Your task to perform on an android device: delete location history Image 0: 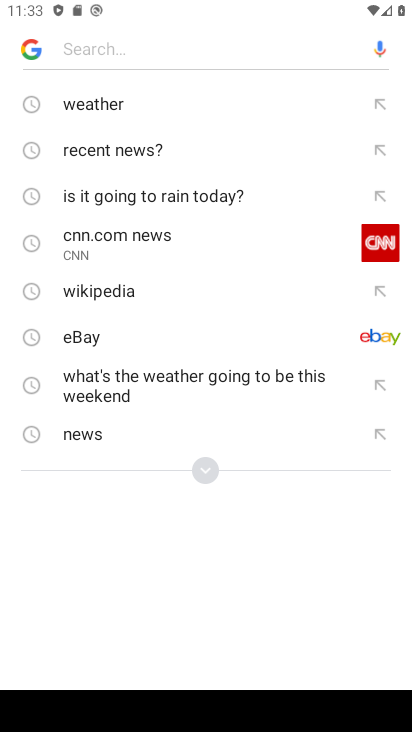
Step 0: press home button
Your task to perform on an android device: delete location history Image 1: 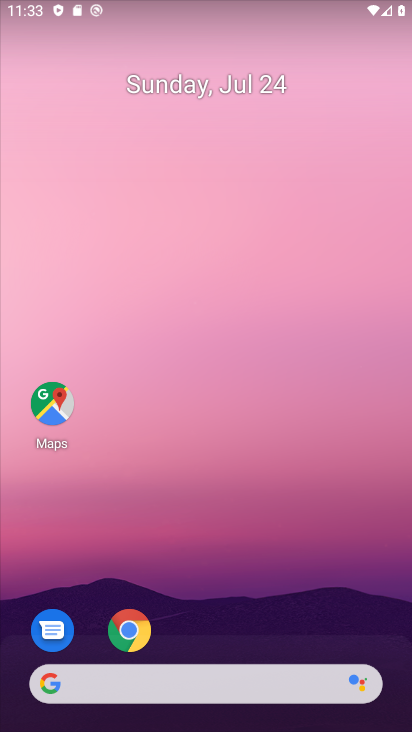
Step 1: drag from (253, 544) to (239, 122)
Your task to perform on an android device: delete location history Image 2: 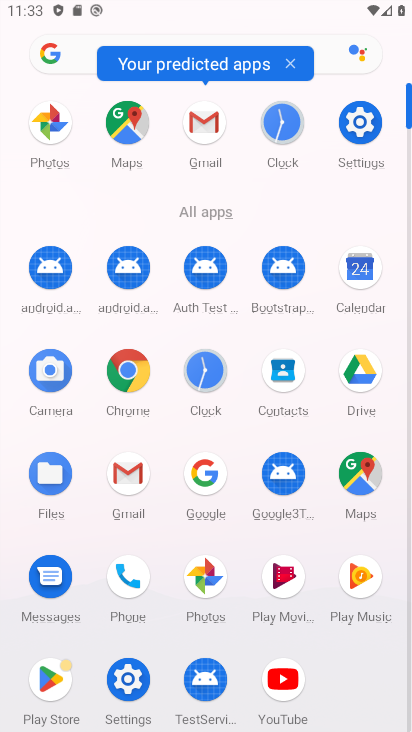
Step 2: click (124, 132)
Your task to perform on an android device: delete location history Image 3: 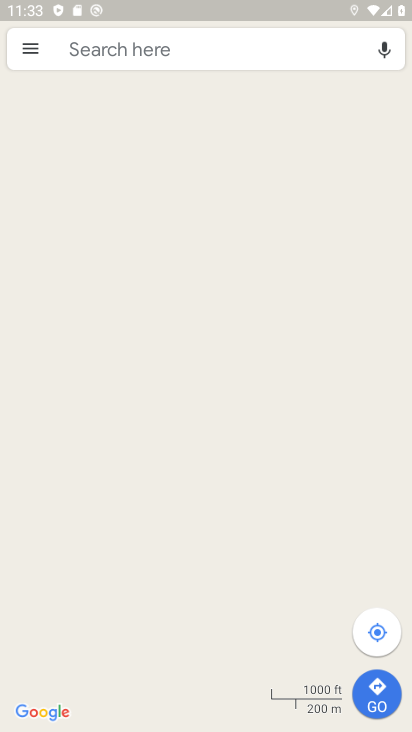
Step 3: click (23, 51)
Your task to perform on an android device: delete location history Image 4: 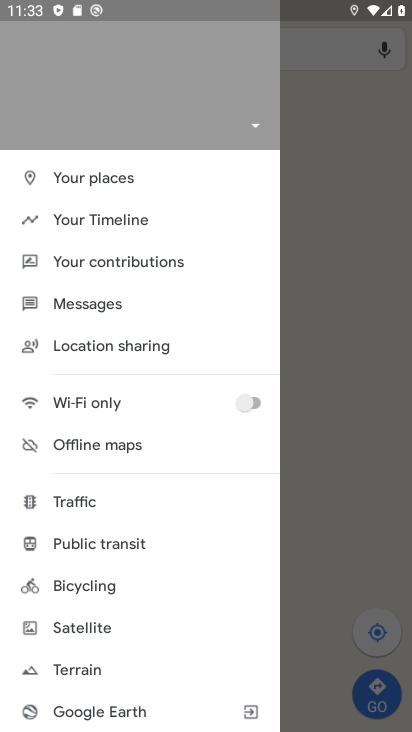
Step 4: click (120, 220)
Your task to perform on an android device: delete location history Image 5: 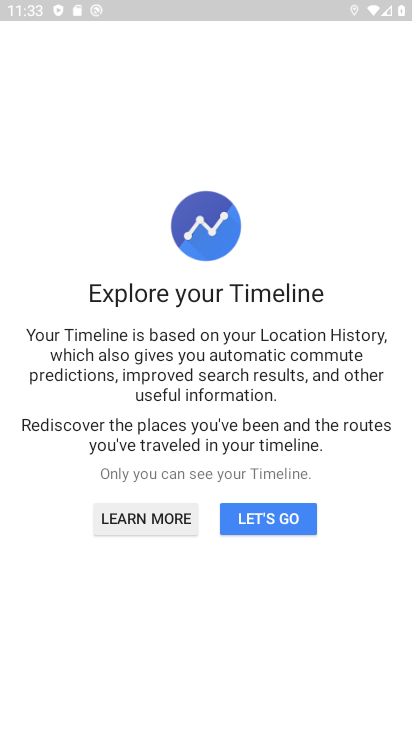
Step 5: click (258, 514)
Your task to perform on an android device: delete location history Image 6: 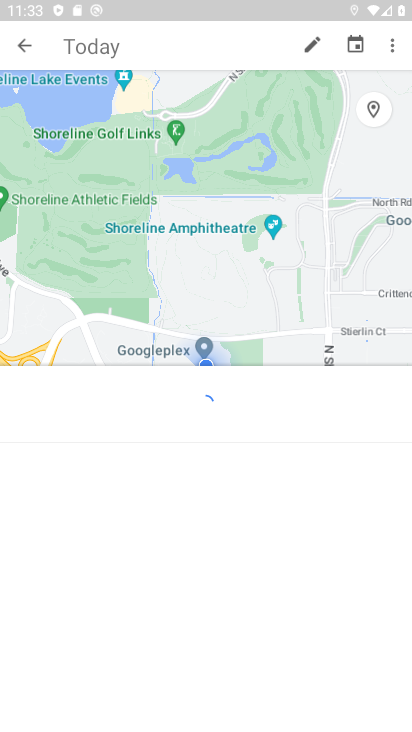
Step 6: click (391, 44)
Your task to perform on an android device: delete location history Image 7: 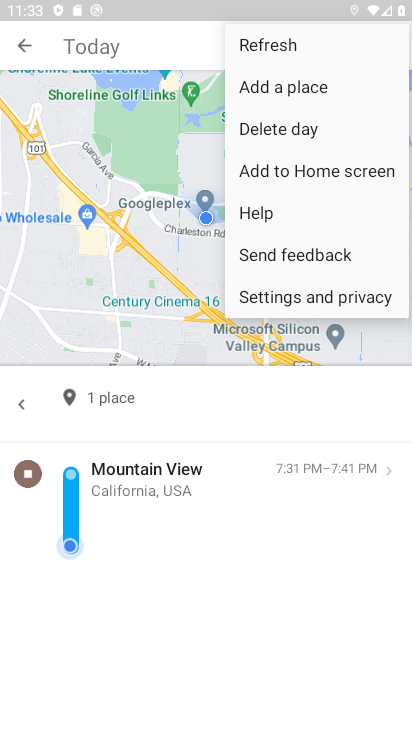
Step 7: click (358, 302)
Your task to perform on an android device: delete location history Image 8: 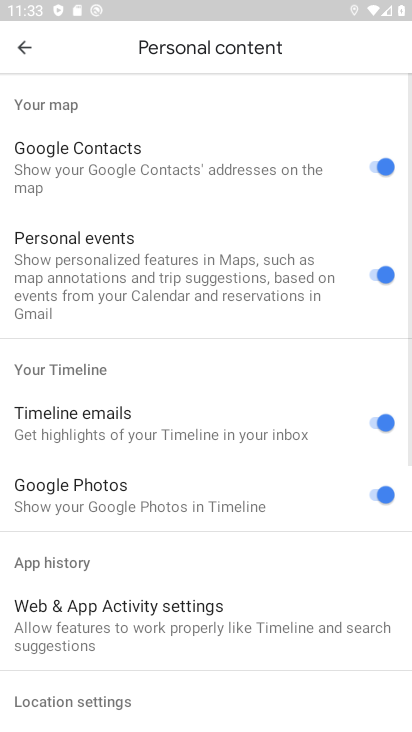
Step 8: drag from (225, 695) to (210, 353)
Your task to perform on an android device: delete location history Image 9: 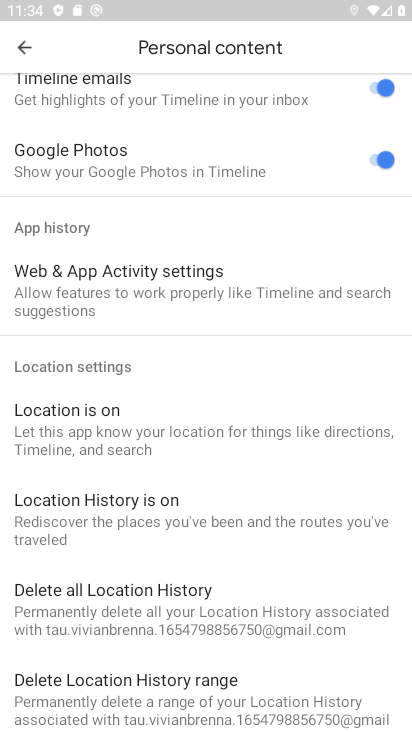
Step 9: click (222, 598)
Your task to perform on an android device: delete location history Image 10: 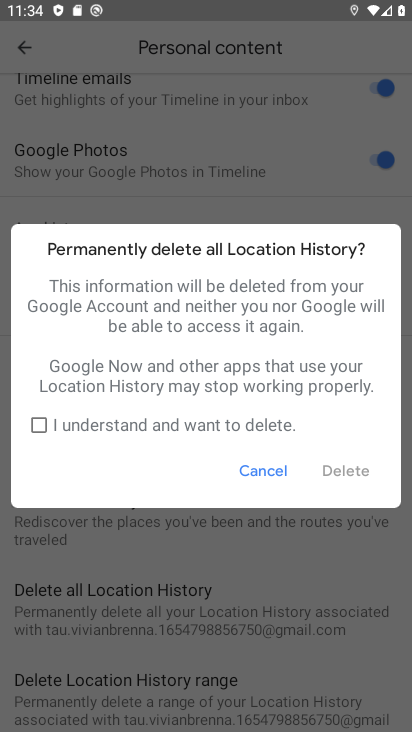
Step 10: click (214, 435)
Your task to perform on an android device: delete location history Image 11: 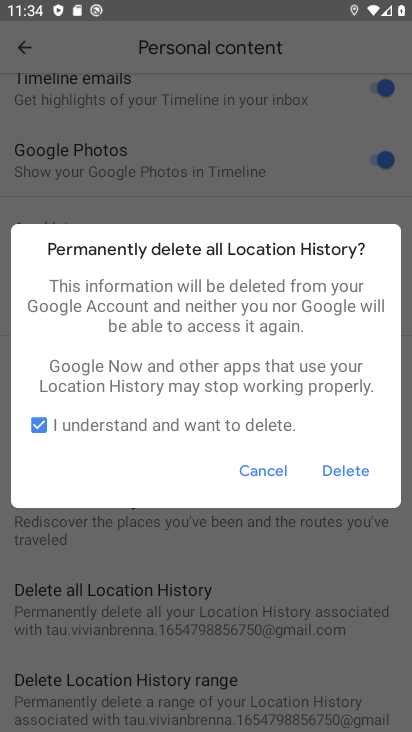
Step 11: click (343, 478)
Your task to perform on an android device: delete location history Image 12: 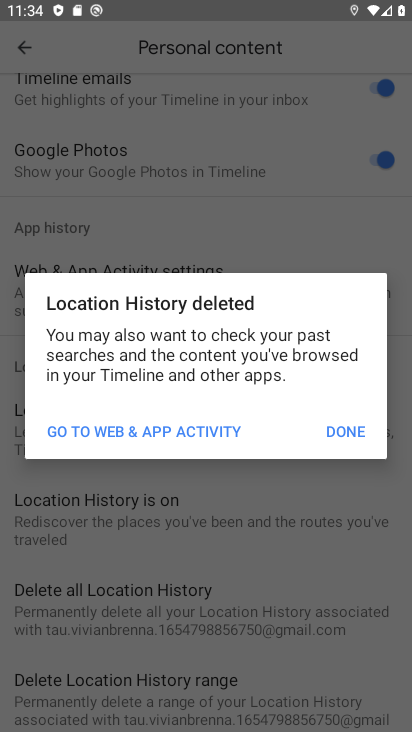
Step 12: click (336, 431)
Your task to perform on an android device: delete location history Image 13: 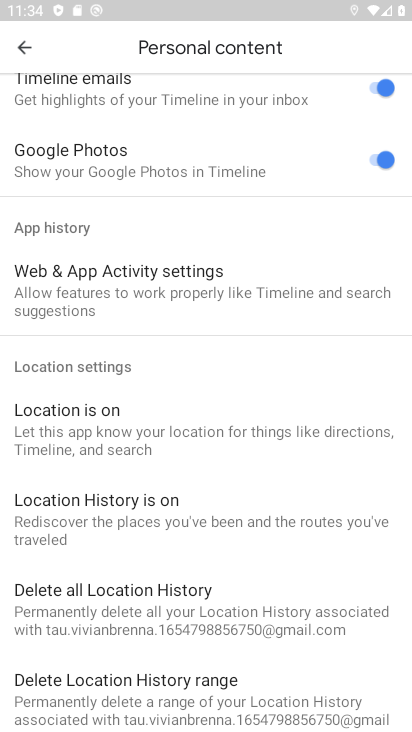
Step 13: task complete